Your task to perform on an android device: turn on javascript in the chrome app Image 0: 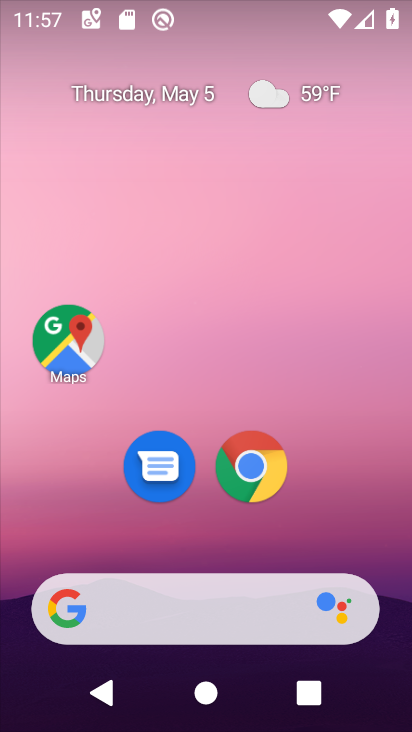
Step 0: drag from (352, 521) to (324, 128)
Your task to perform on an android device: turn on javascript in the chrome app Image 1: 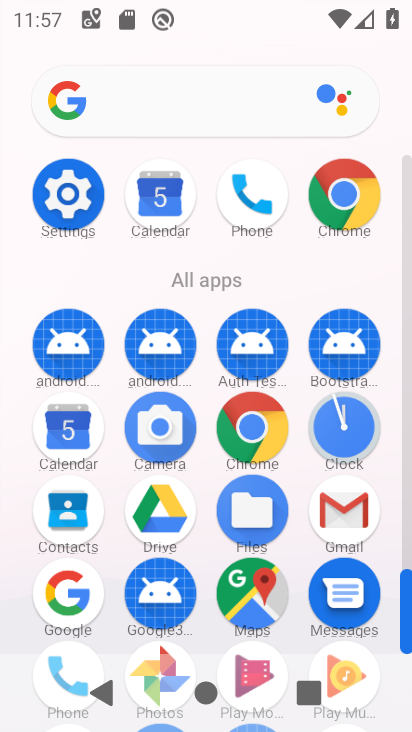
Step 1: click (345, 216)
Your task to perform on an android device: turn on javascript in the chrome app Image 2: 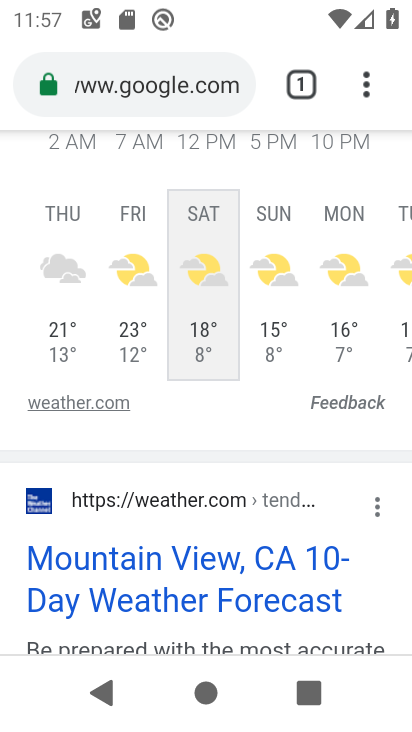
Step 2: drag from (370, 109) to (144, 522)
Your task to perform on an android device: turn on javascript in the chrome app Image 3: 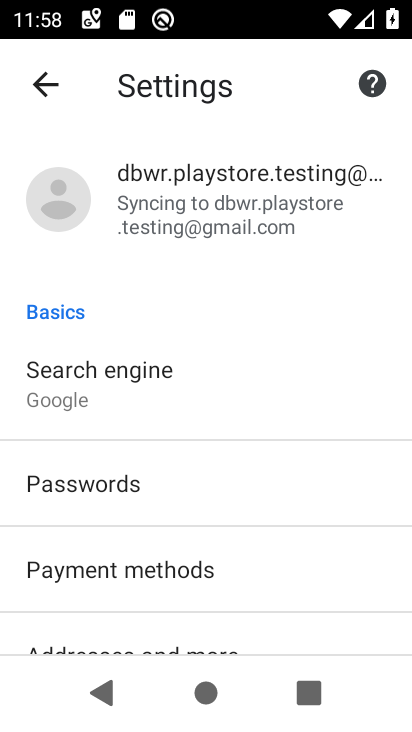
Step 3: drag from (241, 619) to (215, 86)
Your task to perform on an android device: turn on javascript in the chrome app Image 4: 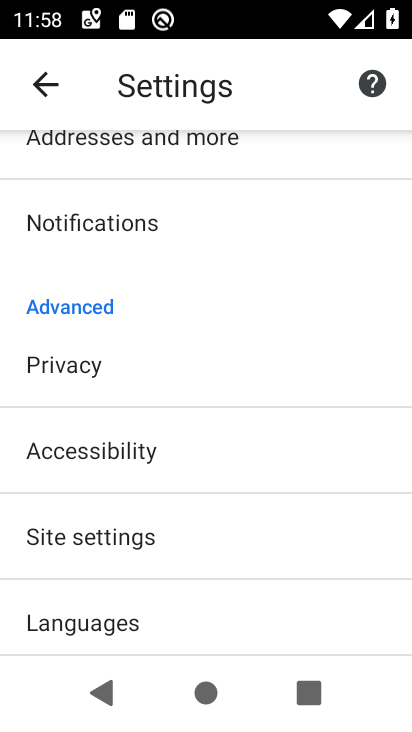
Step 4: click (204, 527)
Your task to perform on an android device: turn on javascript in the chrome app Image 5: 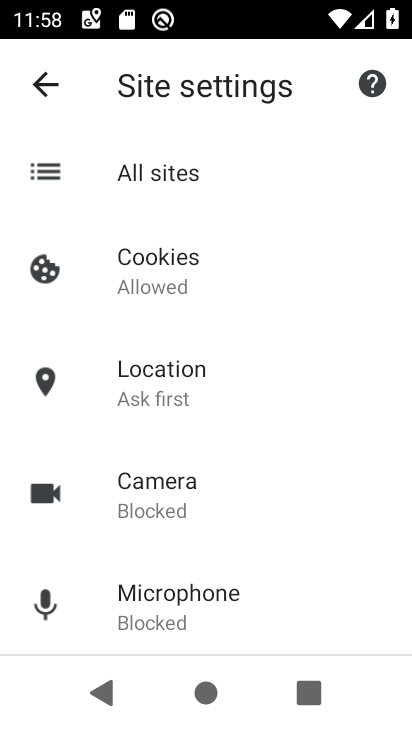
Step 5: drag from (272, 558) to (270, 211)
Your task to perform on an android device: turn on javascript in the chrome app Image 6: 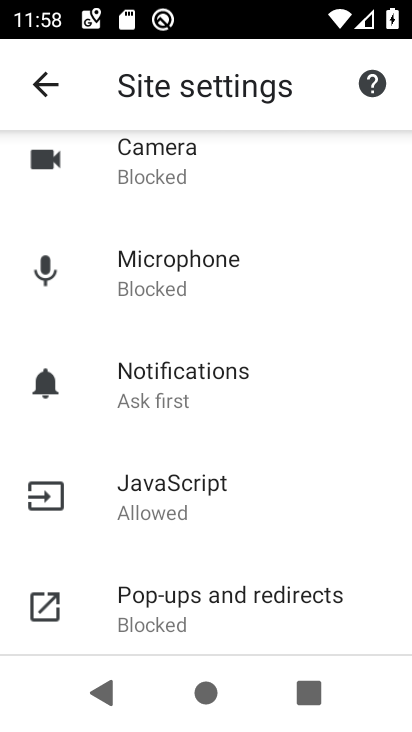
Step 6: click (283, 488)
Your task to perform on an android device: turn on javascript in the chrome app Image 7: 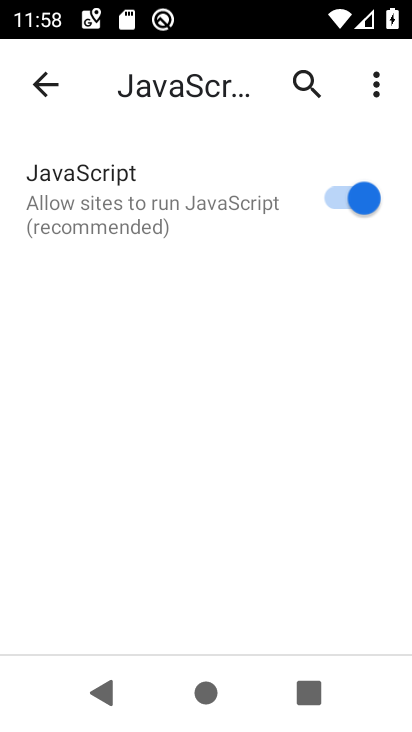
Step 7: task complete